Your task to perform on an android device: turn smart compose on in the gmail app Image 0: 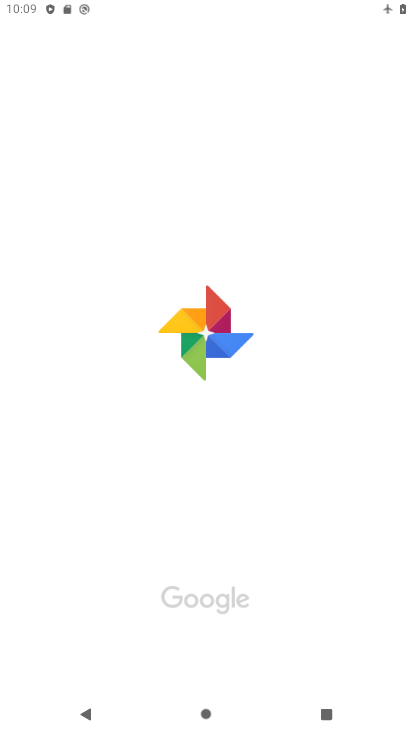
Step 0: drag from (388, 573) to (197, 154)
Your task to perform on an android device: turn smart compose on in the gmail app Image 1: 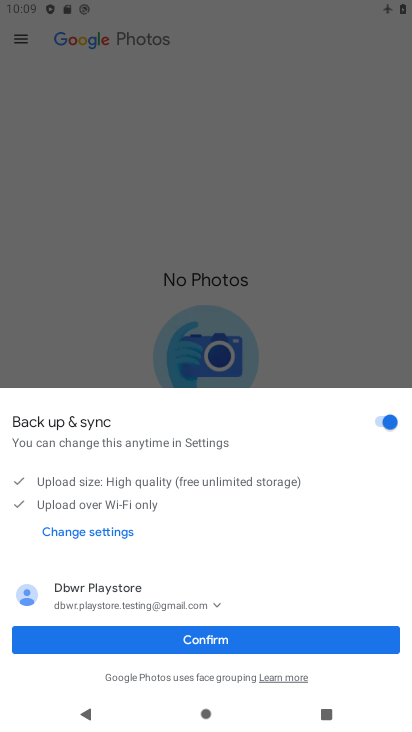
Step 1: press home button
Your task to perform on an android device: turn smart compose on in the gmail app Image 2: 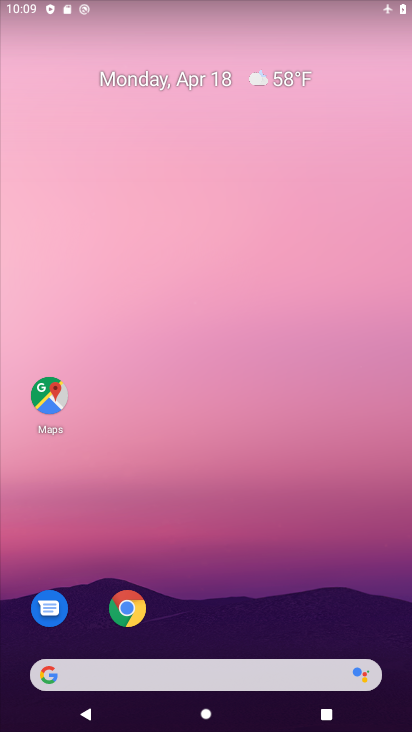
Step 2: drag from (337, 633) to (226, 248)
Your task to perform on an android device: turn smart compose on in the gmail app Image 3: 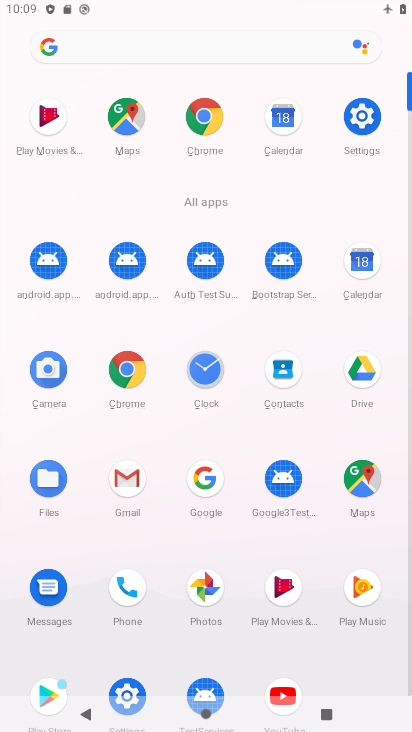
Step 3: click (139, 466)
Your task to perform on an android device: turn smart compose on in the gmail app Image 4: 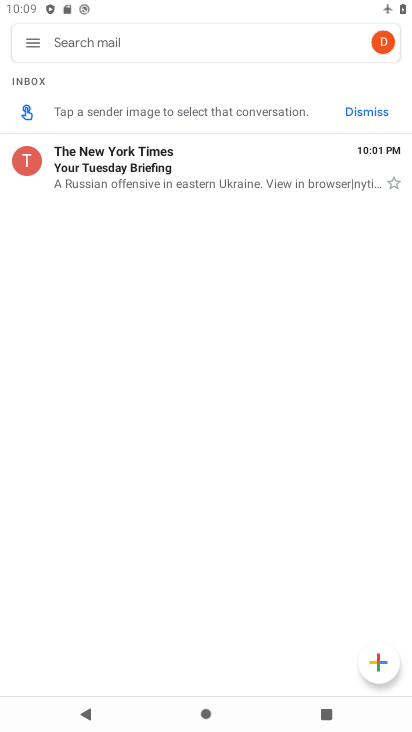
Step 4: click (29, 38)
Your task to perform on an android device: turn smart compose on in the gmail app Image 5: 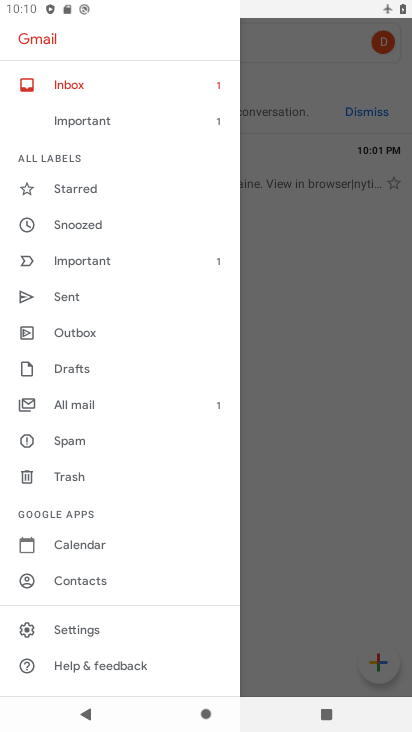
Step 5: click (152, 634)
Your task to perform on an android device: turn smart compose on in the gmail app Image 6: 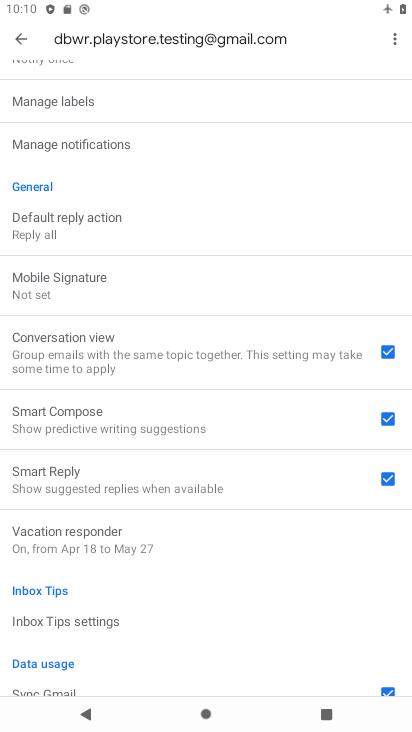
Step 6: task complete